Your task to perform on an android device: Do I have any events tomorrow? Image 0: 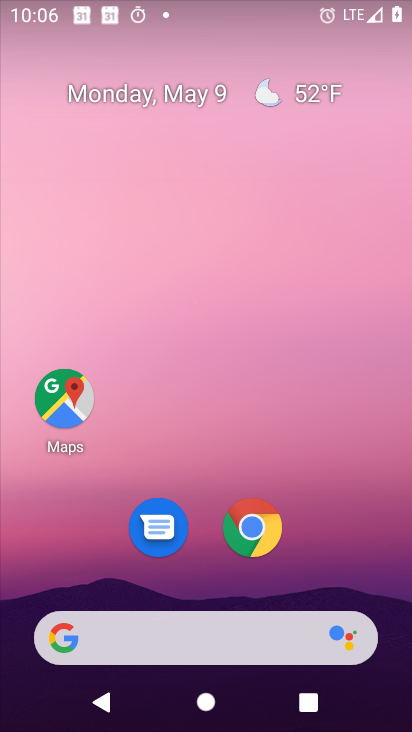
Step 0: drag from (201, 570) to (228, 162)
Your task to perform on an android device: Do I have any events tomorrow? Image 1: 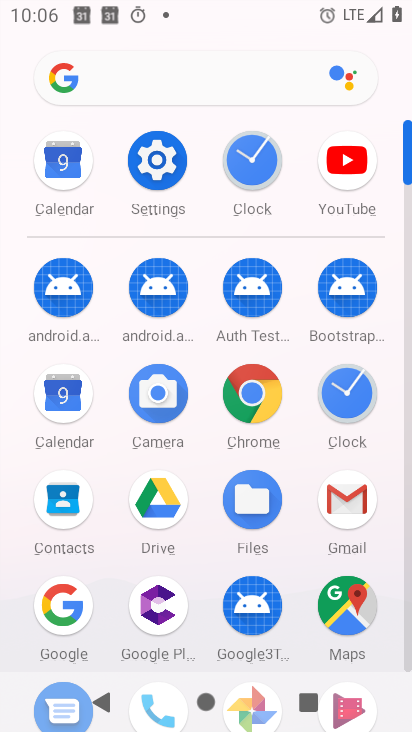
Step 1: click (66, 401)
Your task to perform on an android device: Do I have any events tomorrow? Image 2: 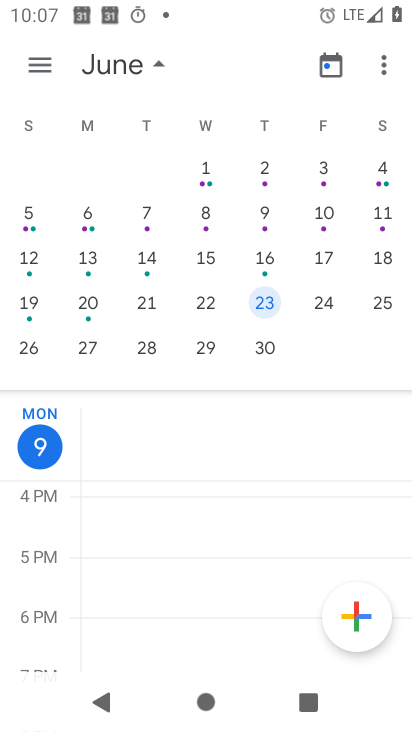
Step 2: drag from (97, 370) to (410, 338)
Your task to perform on an android device: Do I have any events tomorrow? Image 3: 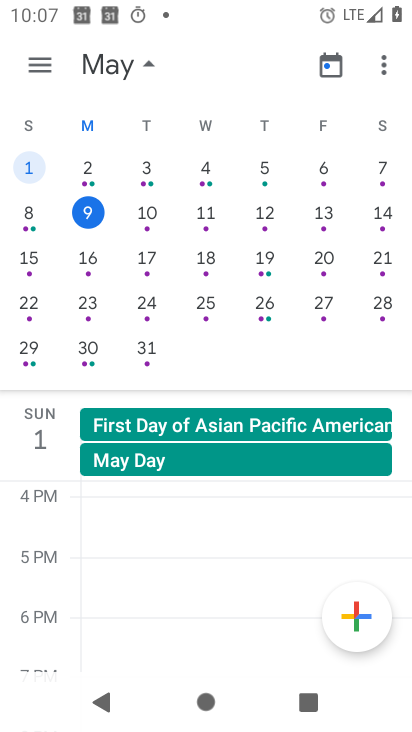
Step 3: click (147, 210)
Your task to perform on an android device: Do I have any events tomorrow? Image 4: 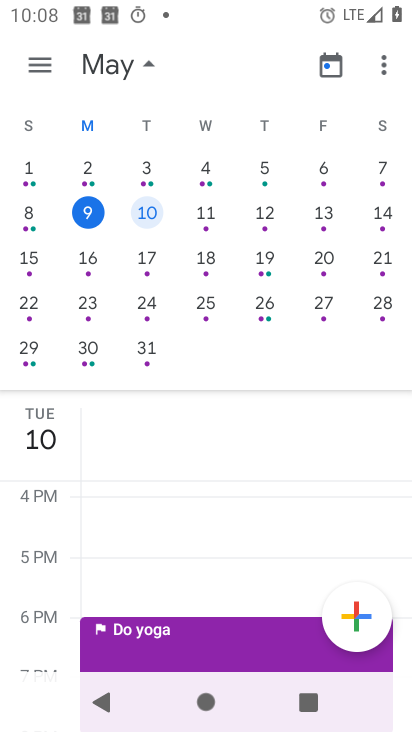
Step 4: task complete